Your task to perform on an android device: What's the weather going to be tomorrow? Image 0: 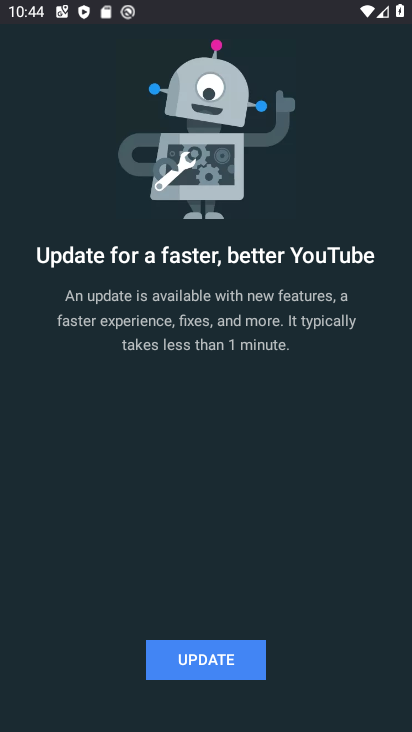
Step 0: task complete